Your task to perform on an android device: Open calendar and show me the fourth week of next month Image 0: 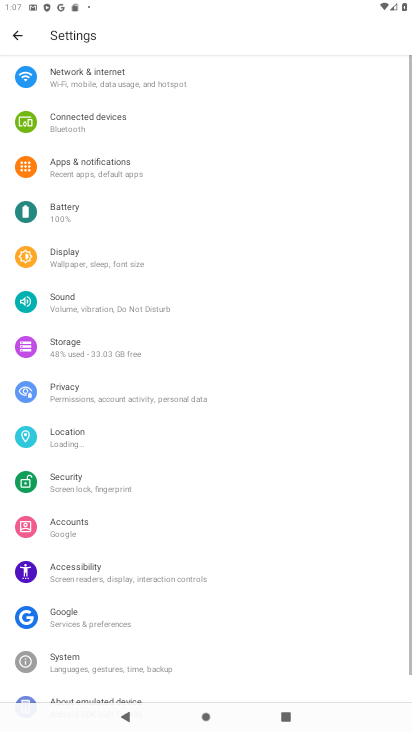
Step 0: press home button
Your task to perform on an android device: Open calendar and show me the fourth week of next month Image 1: 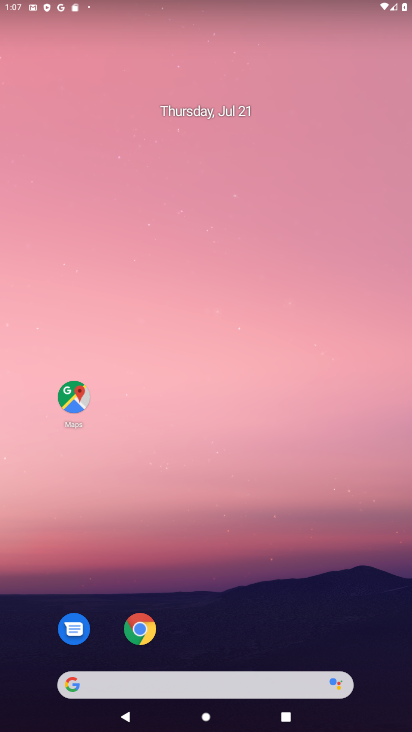
Step 1: drag from (197, 637) to (241, 32)
Your task to perform on an android device: Open calendar and show me the fourth week of next month Image 2: 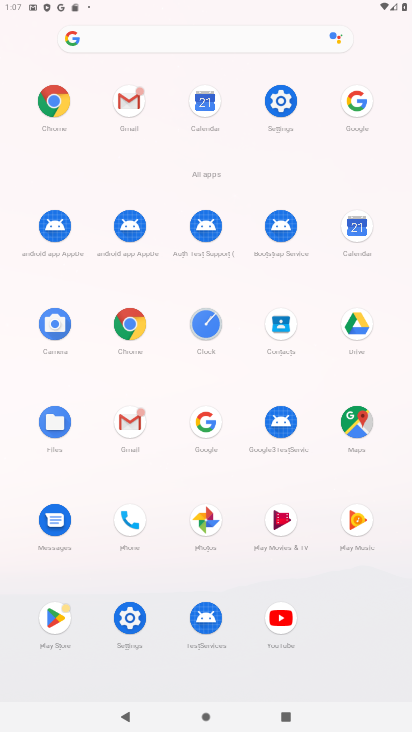
Step 2: click (356, 230)
Your task to perform on an android device: Open calendar and show me the fourth week of next month Image 3: 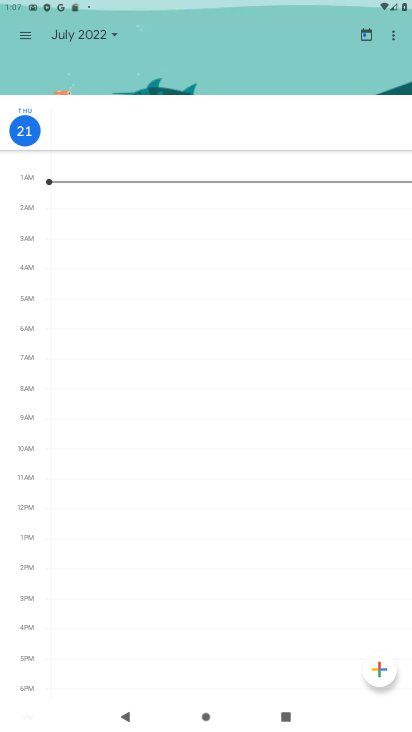
Step 3: click (100, 35)
Your task to perform on an android device: Open calendar and show me the fourth week of next month Image 4: 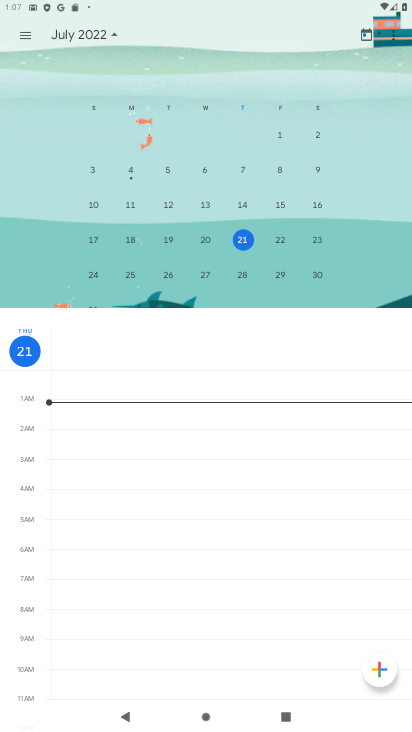
Step 4: click (26, 34)
Your task to perform on an android device: Open calendar and show me the fourth week of next month Image 5: 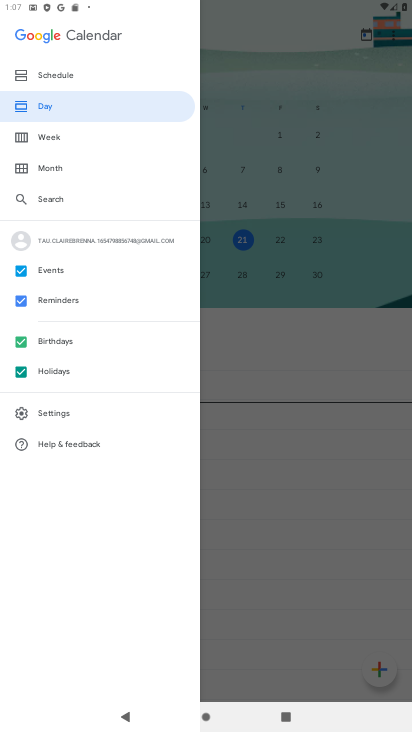
Step 5: click (55, 72)
Your task to perform on an android device: Open calendar and show me the fourth week of next month Image 6: 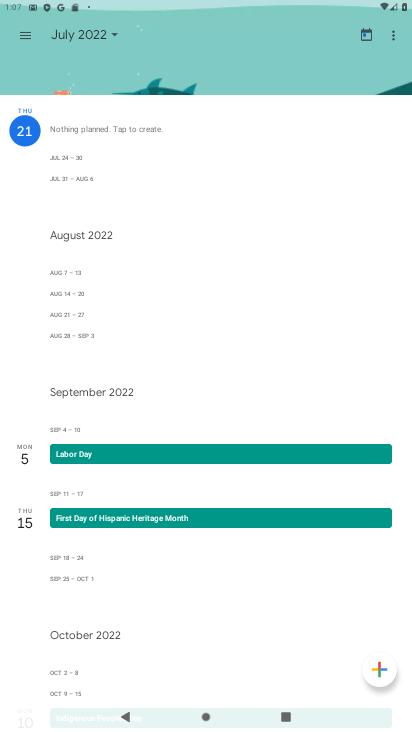
Step 6: click (81, 31)
Your task to perform on an android device: Open calendar and show me the fourth week of next month Image 7: 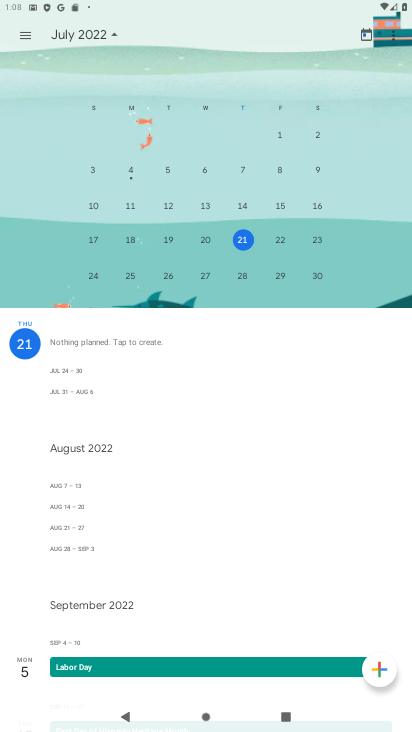
Step 7: drag from (358, 263) to (37, 223)
Your task to perform on an android device: Open calendar and show me the fourth week of next month Image 8: 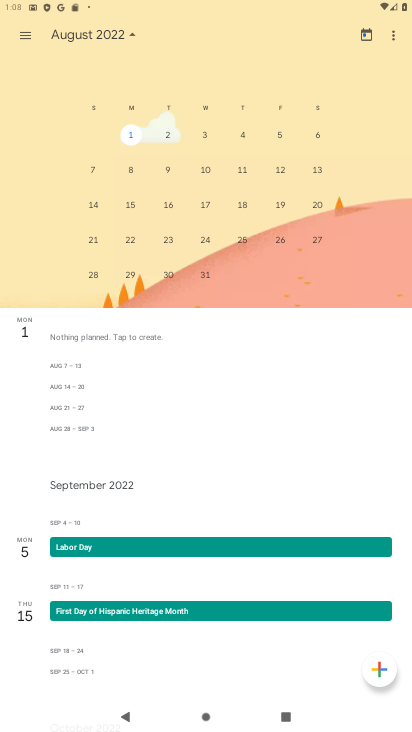
Step 8: click (242, 237)
Your task to perform on an android device: Open calendar and show me the fourth week of next month Image 9: 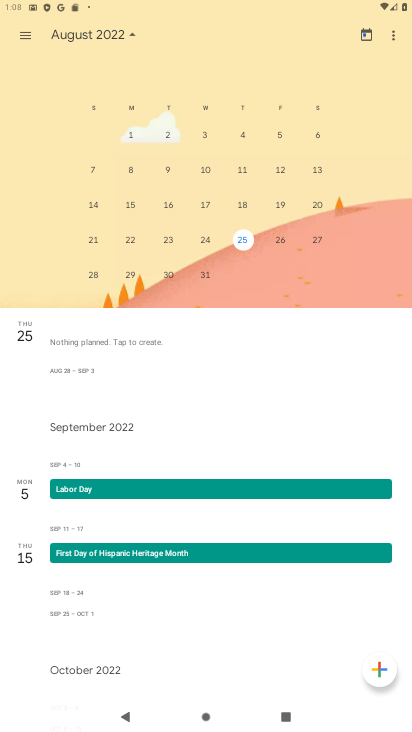
Step 9: task complete